Your task to perform on an android device: set the stopwatch Image 0: 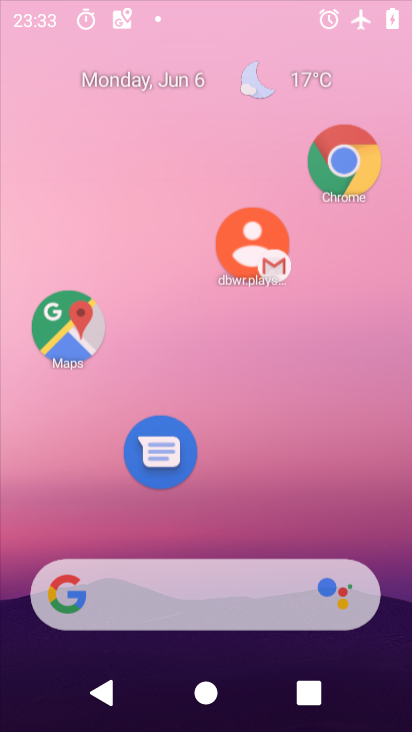
Step 0: drag from (227, 551) to (233, 119)
Your task to perform on an android device: set the stopwatch Image 1: 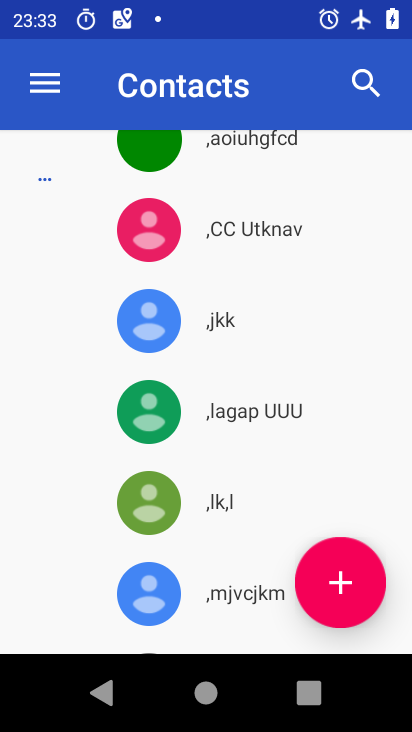
Step 1: press home button
Your task to perform on an android device: set the stopwatch Image 2: 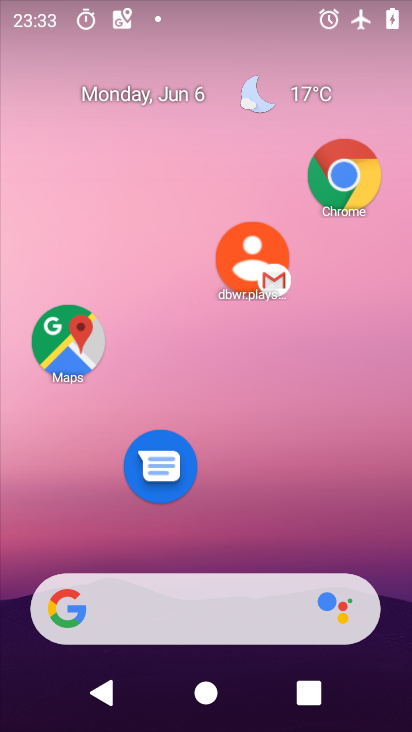
Step 2: drag from (232, 495) to (237, 84)
Your task to perform on an android device: set the stopwatch Image 3: 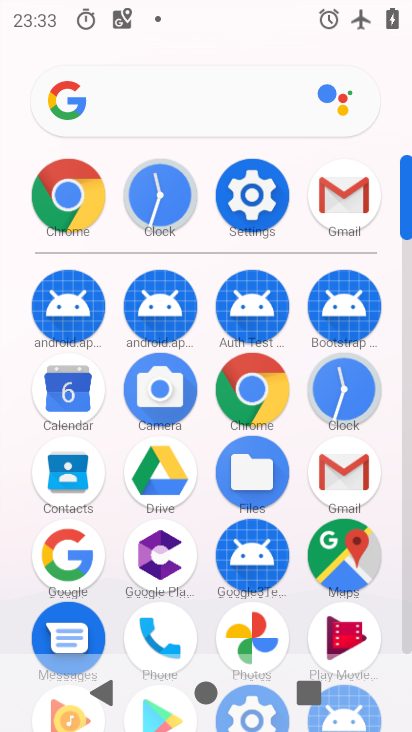
Step 3: click (350, 398)
Your task to perform on an android device: set the stopwatch Image 4: 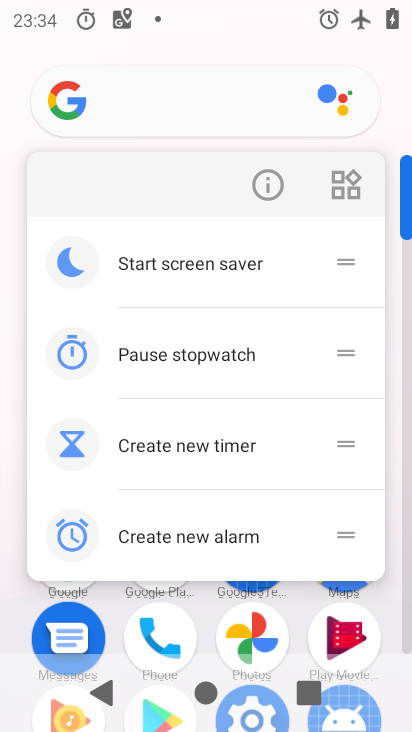
Step 4: click (287, 184)
Your task to perform on an android device: set the stopwatch Image 5: 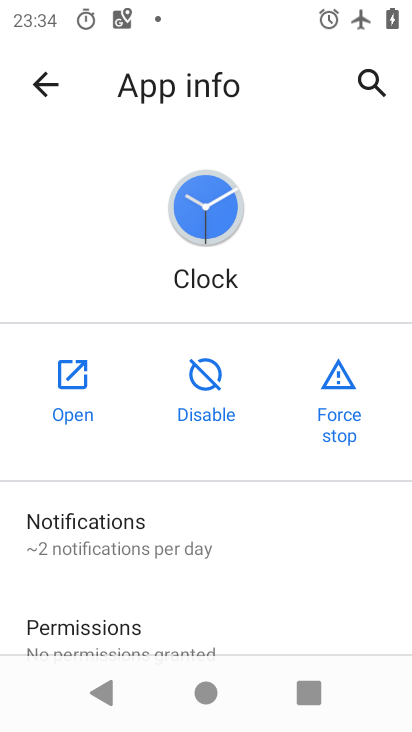
Step 5: click (47, 386)
Your task to perform on an android device: set the stopwatch Image 6: 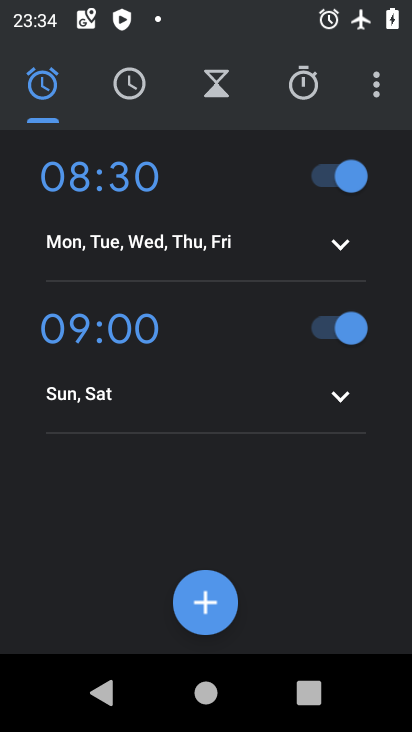
Step 6: click (305, 97)
Your task to perform on an android device: set the stopwatch Image 7: 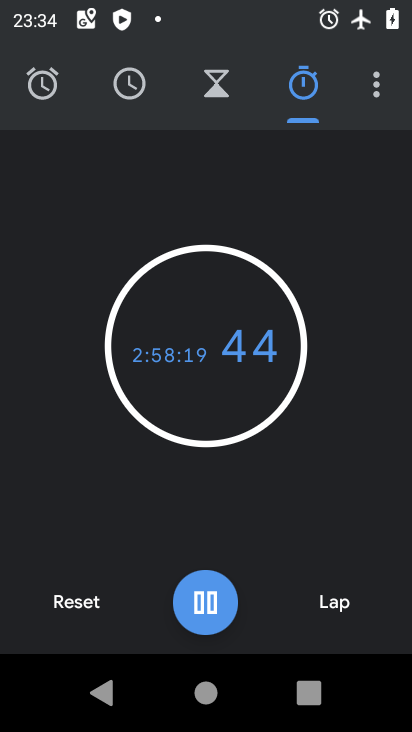
Step 7: click (75, 611)
Your task to perform on an android device: set the stopwatch Image 8: 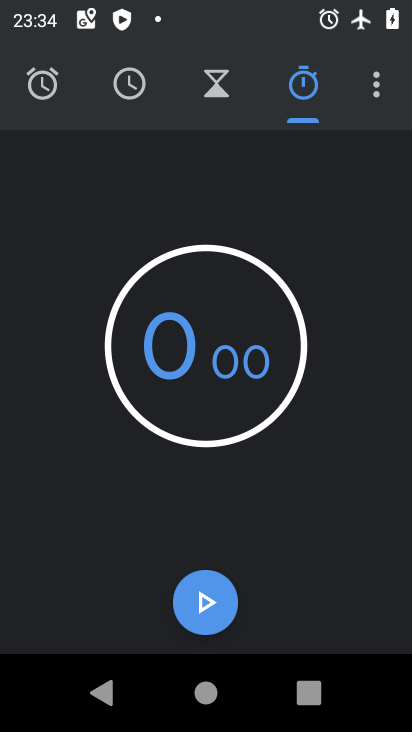
Step 8: click (210, 597)
Your task to perform on an android device: set the stopwatch Image 9: 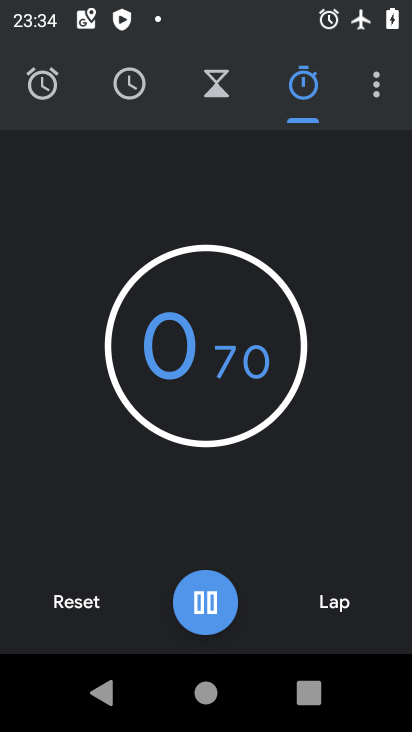
Step 9: task complete